Your task to perform on an android device: Search for Mexican restaurants on Maps Image 0: 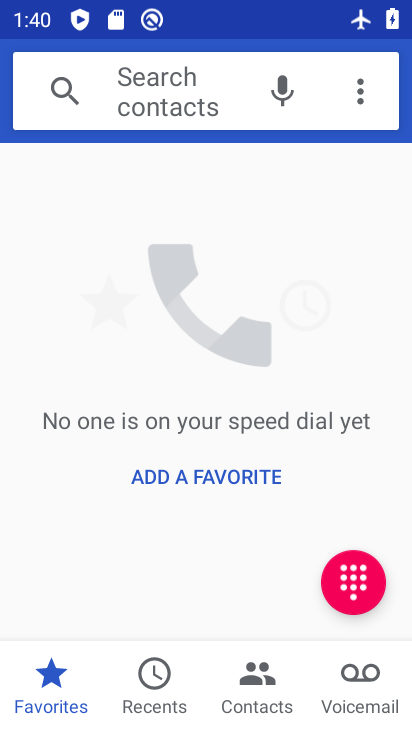
Step 0: drag from (405, 540) to (350, 262)
Your task to perform on an android device: Search for Mexican restaurants on Maps Image 1: 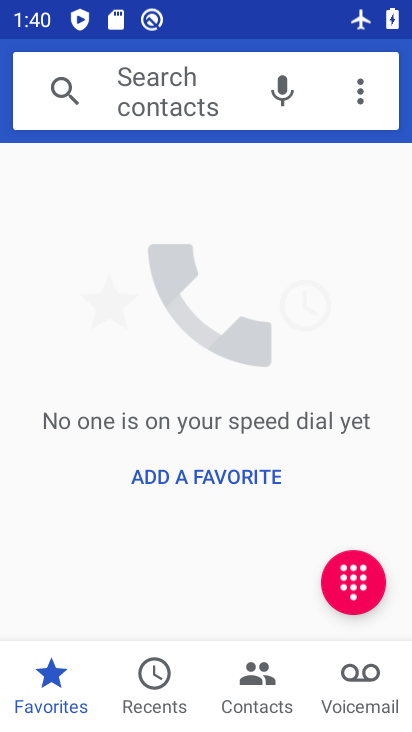
Step 1: press home button
Your task to perform on an android device: Search for Mexican restaurants on Maps Image 2: 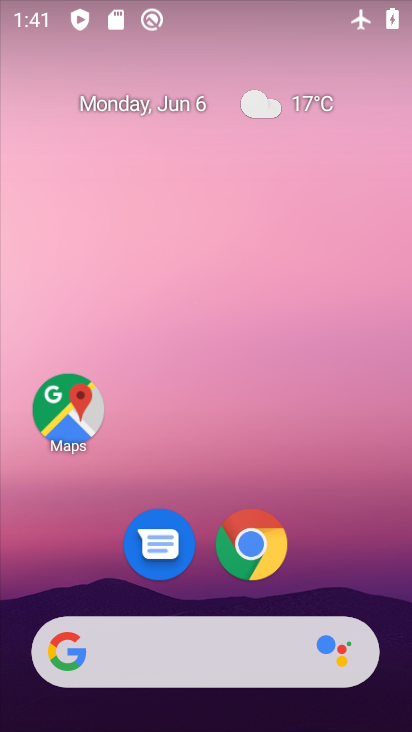
Step 2: drag from (356, 512) to (337, 188)
Your task to perform on an android device: Search for Mexican restaurants on Maps Image 3: 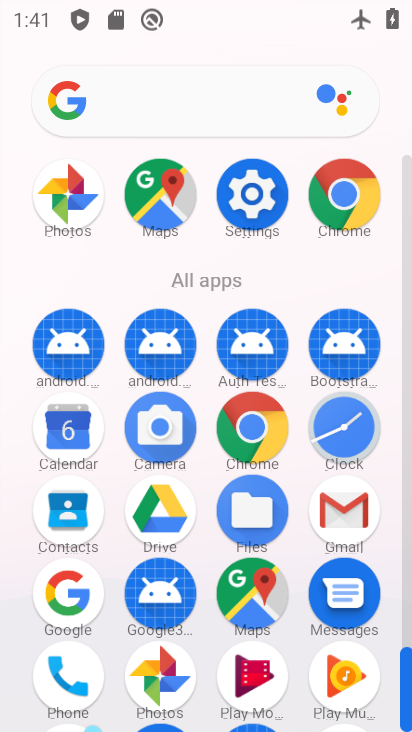
Step 3: click (247, 607)
Your task to perform on an android device: Search for Mexican restaurants on Maps Image 4: 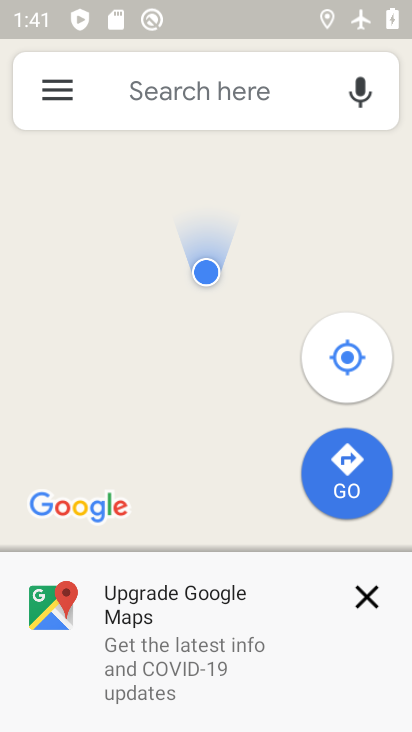
Step 4: click (191, 101)
Your task to perform on an android device: Search for Mexican restaurants on Maps Image 5: 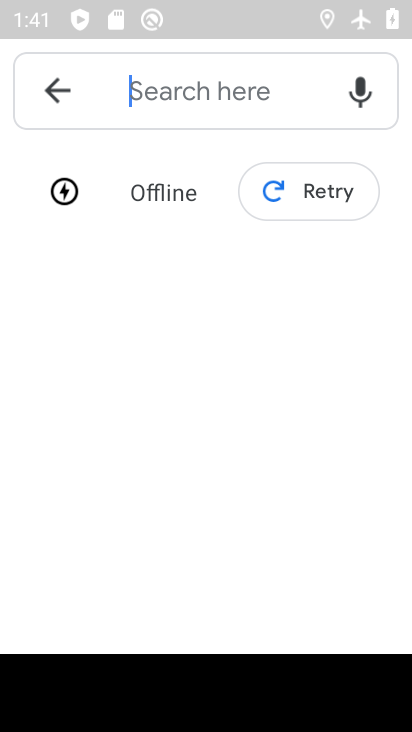
Step 5: type "mexican restaurants "
Your task to perform on an android device: Search for Mexican restaurants on Maps Image 6: 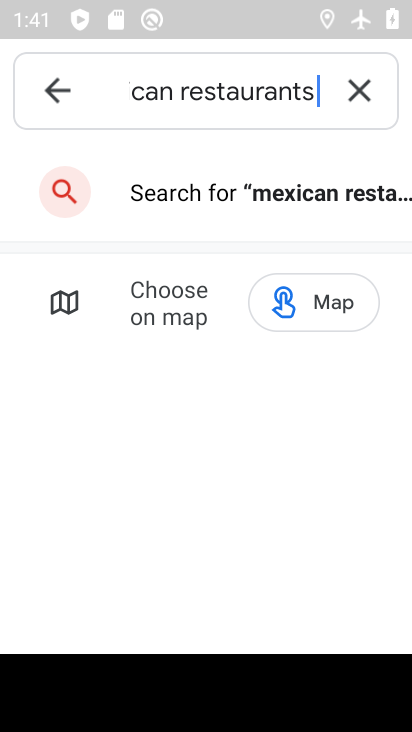
Step 6: click (205, 193)
Your task to perform on an android device: Search for Mexican restaurants on Maps Image 7: 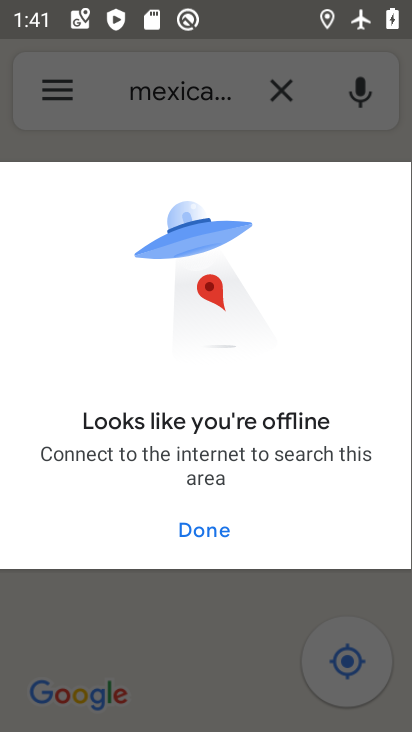
Step 7: task complete